Your task to perform on an android device: clear history in the chrome app Image 0: 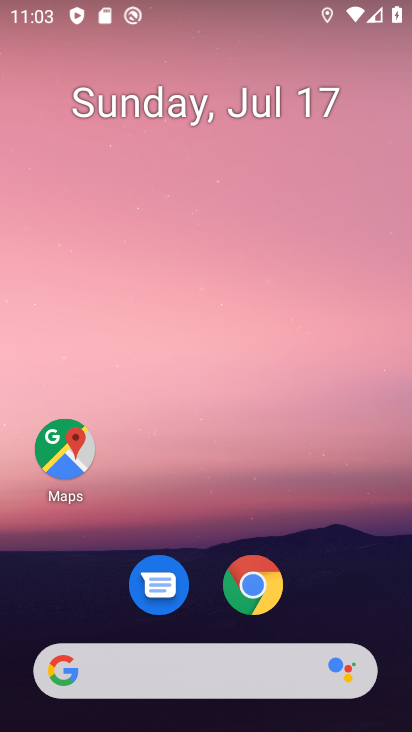
Step 0: click (252, 583)
Your task to perform on an android device: clear history in the chrome app Image 1: 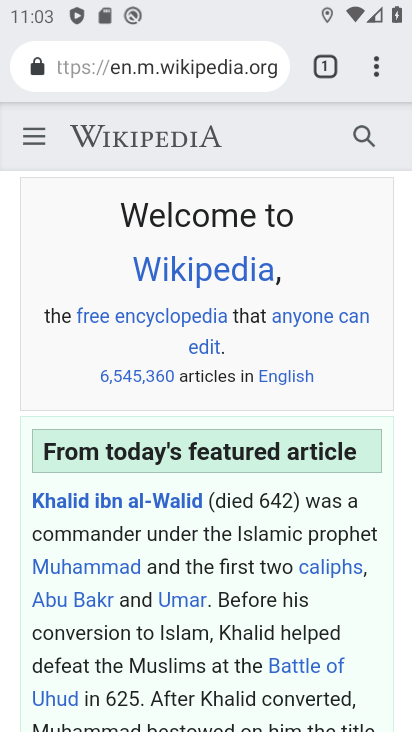
Step 1: click (368, 68)
Your task to perform on an android device: clear history in the chrome app Image 2: 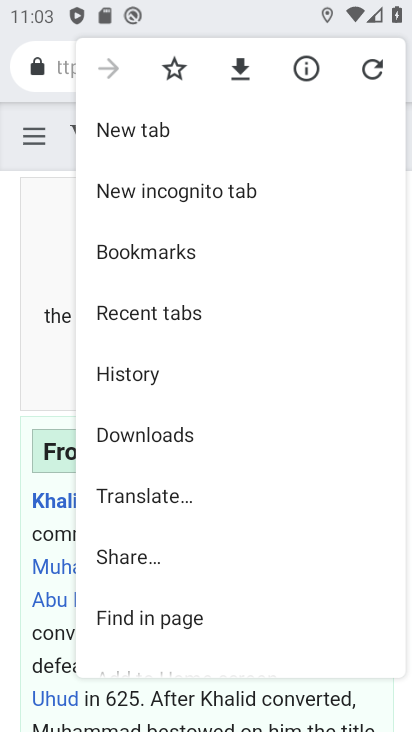
Step 2: click (116, 366)
Your task to perform on an android device: clear history in the chrome app Image 3: 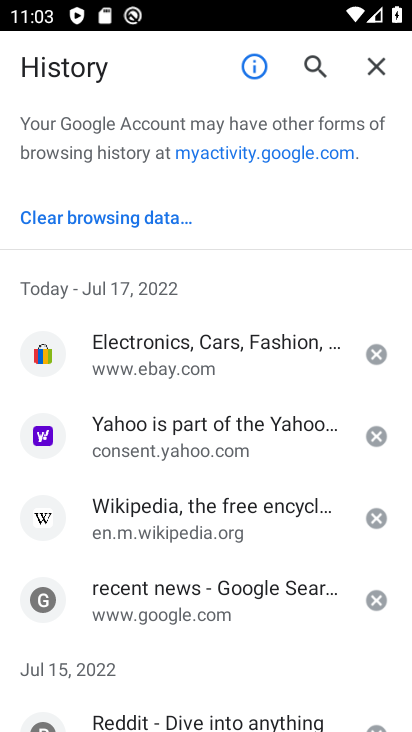
Step 3: click (132, 205)
Your task to perform on an android device: clear history in the chrome app Image 4: 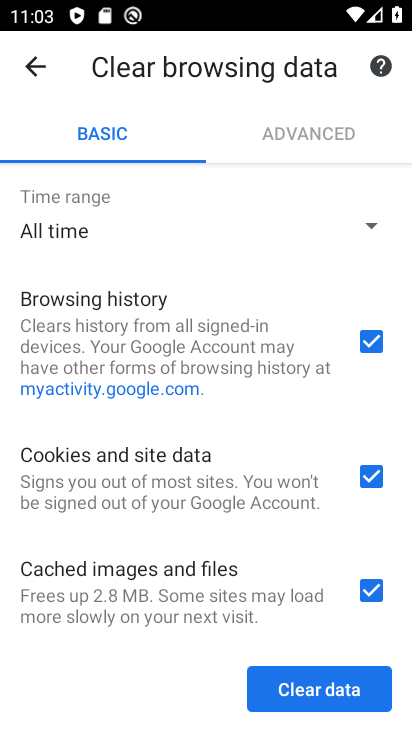
Step 4: click (334, 691)
Your task to perform on an android device: clear history in the chrome app Image 5: 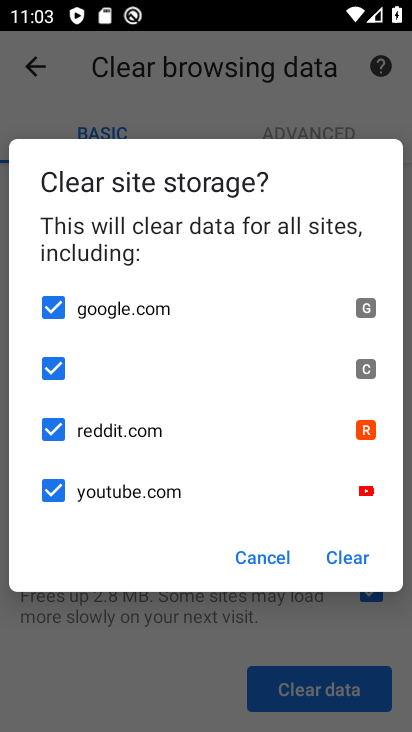
Step 5: click (362, 549)
Your task to perform on an android device: clear history in the chrome app Image 6: 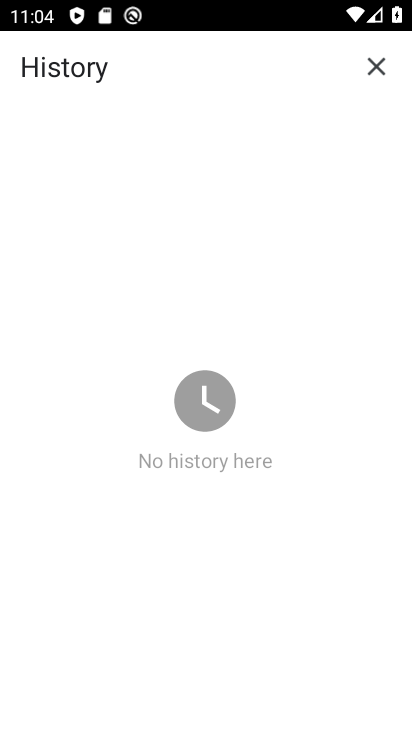
Step 6: task complete